Your task to perform on an android device: delete location history Image 0: 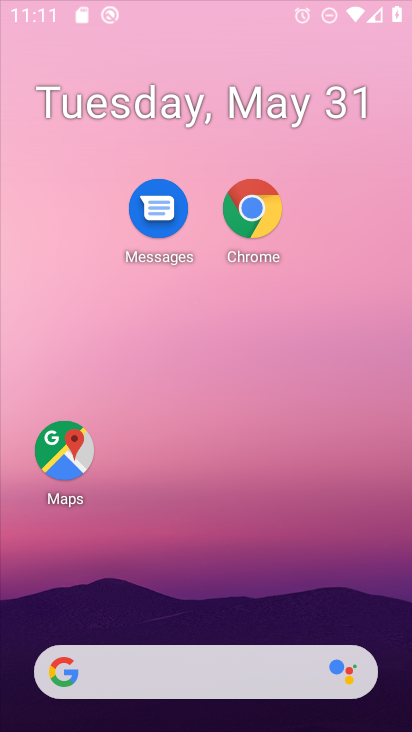
Step 0: press home button
Your task to perform on an android device: delete location history Image 1: 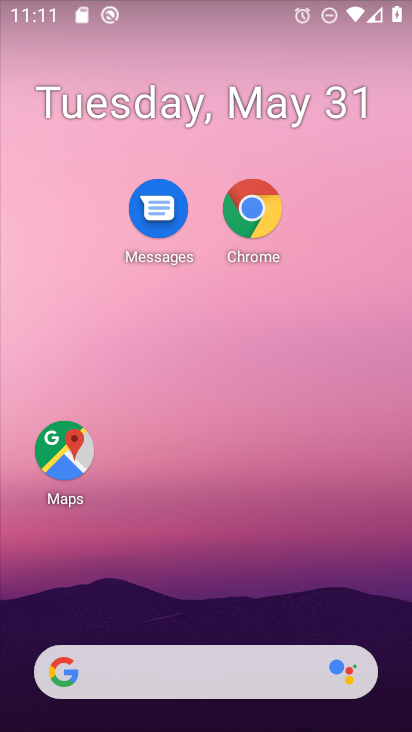
Step 1: drag from (230, 623) to (226, 164)
Your task to perform on an android device: delete location history Image 2: 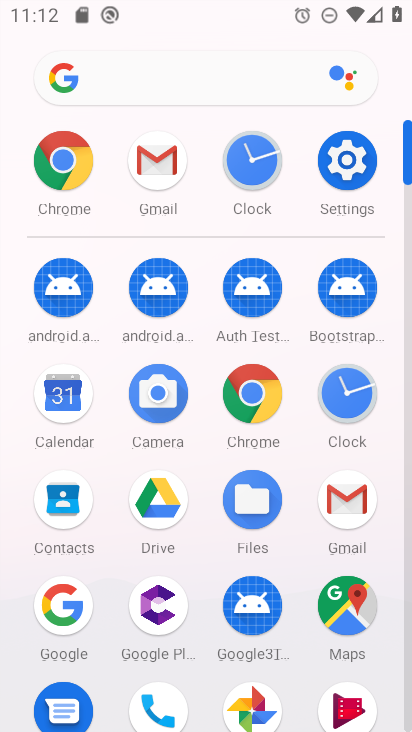
Step 2: click (354, 597)
Your task to perform on an android device: delete location history Image 3: 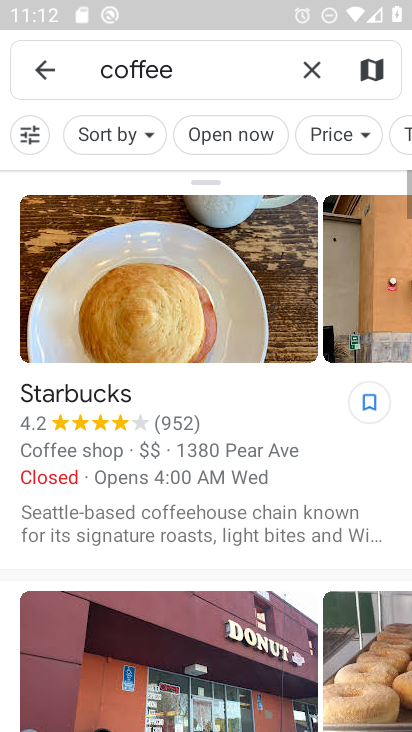
Step 3: click (34, 63)
Your task to perform on an android device: delete location history Image 4: 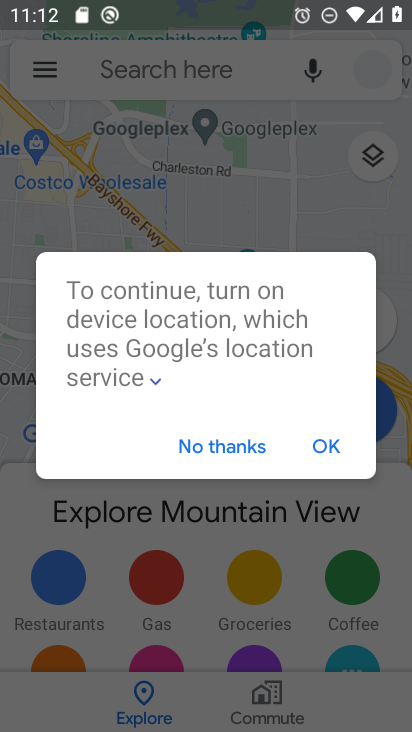
Step 4: click (308, 446)
Your task to perform on an android device: delete location history Image 5: 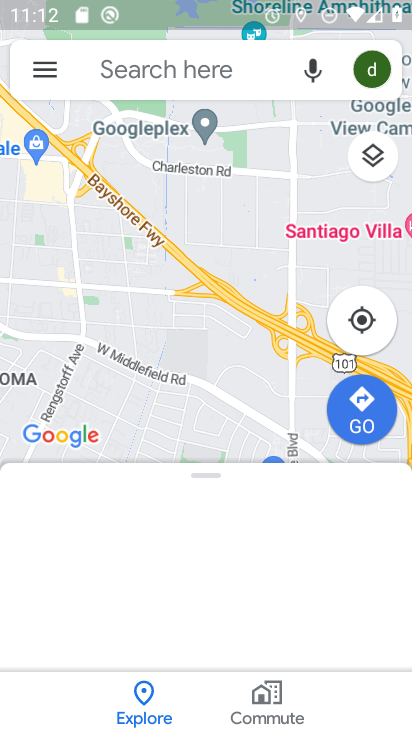
Step 5: click (44, 69)
Your task to perform on an android device: delete location history Image 6: 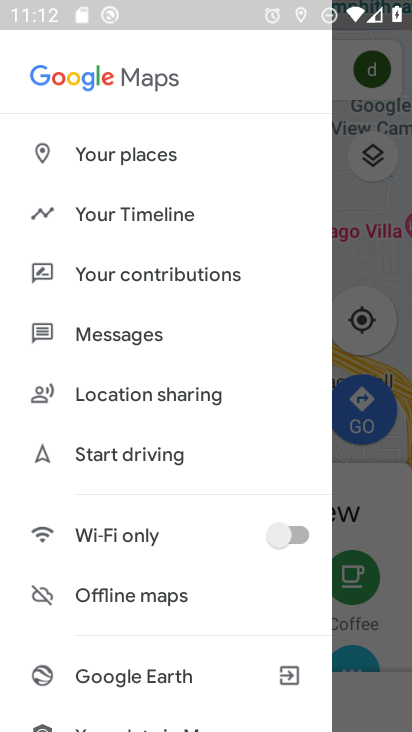
Step 6: click (202, 206)
Your task to perform on an android device: delete location history Image 7: 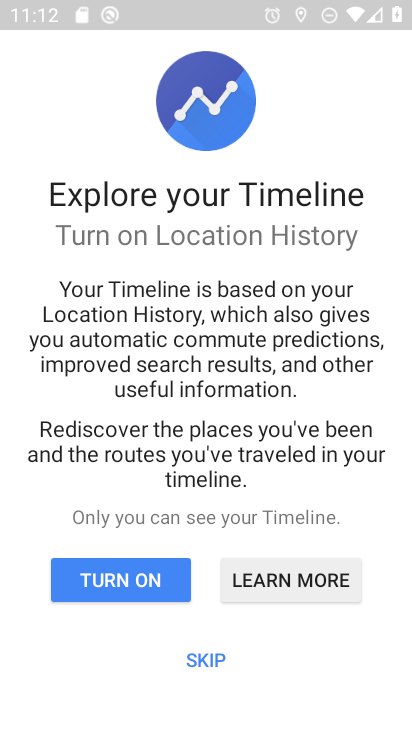
Step 7: click (121, 582)
Your task to perform on an android device: delete location history Image 8: 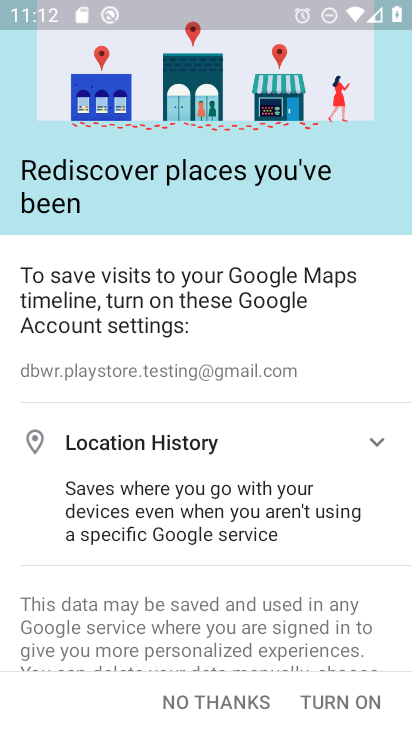
Step 8: drag from (275, 607) to (254, 98)
Your task to perform on an android device: delete location history Image 9: 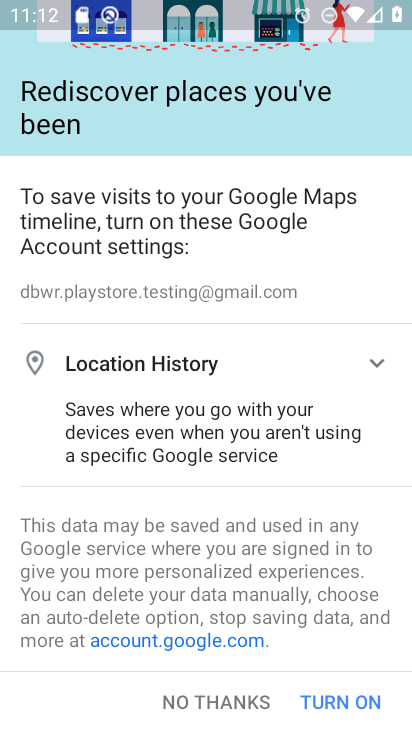
Step 9: click (335, 707)
Your task to perform on an android device: delete location history Image 10: 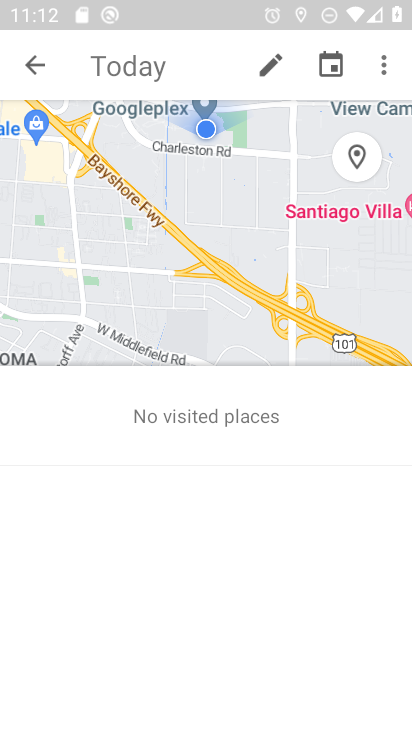
Step 10: click (389, 58)
Your task to perform on an android device: delete location history Image 11: 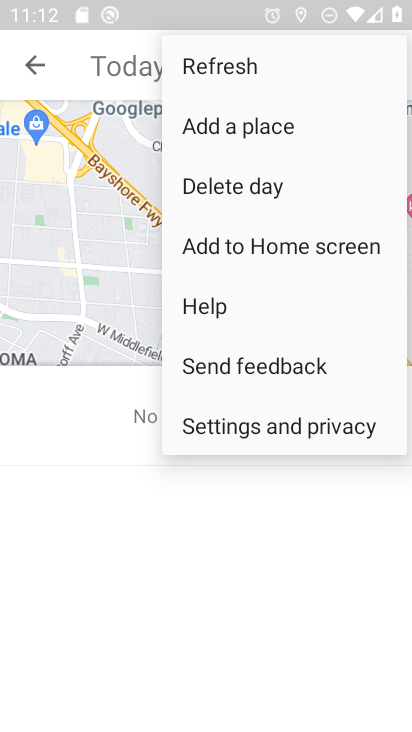
Step 11: click (267, 432)
Your task to perform on an android device: delete location history Image 12: 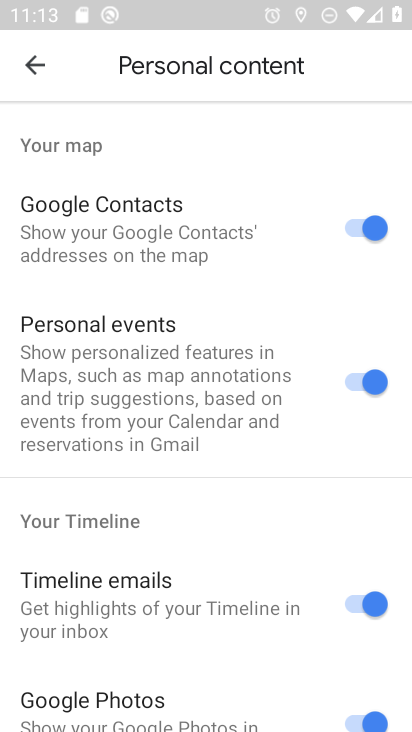
Step 12: drag from (190, 698) to (179, 149)
Your task to perform on an android device: delete location history Image 13: 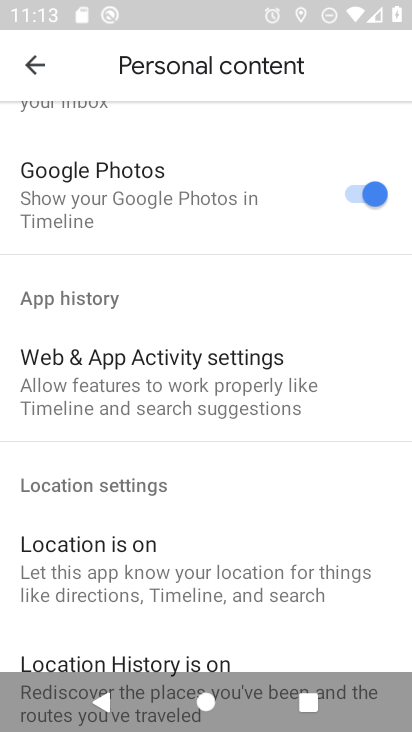
Step 13: drag from (201, 641) to (218, 18)
Your task to perform on an android device: delete location history Image 14: 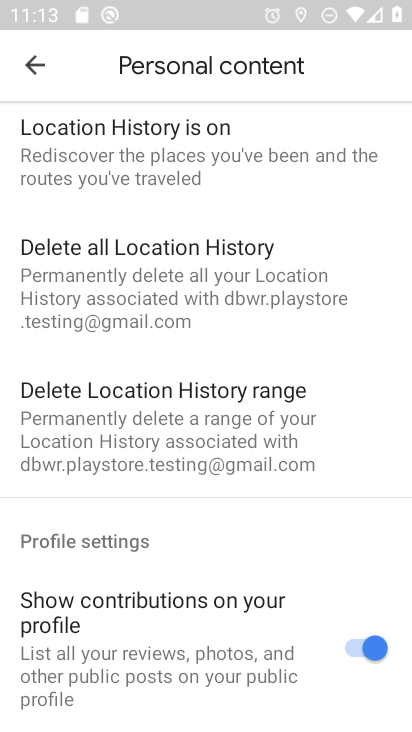
Step 14: click (171, 265)
Your task to perform on an android device: delete location history Image 15: 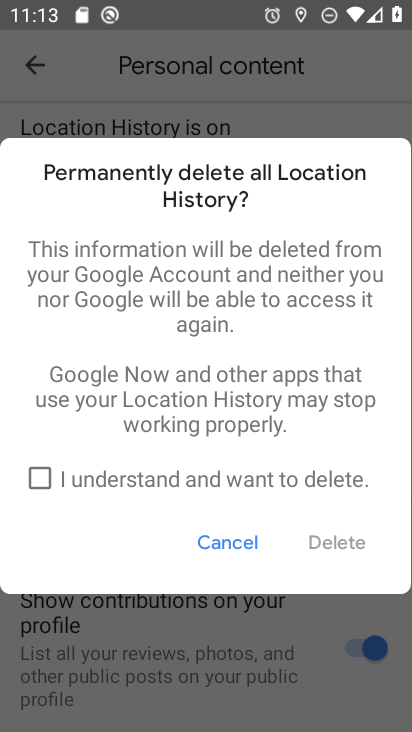
Step 15: click (38, 478)
Your task to perform on an android device: delete location history Image 16: 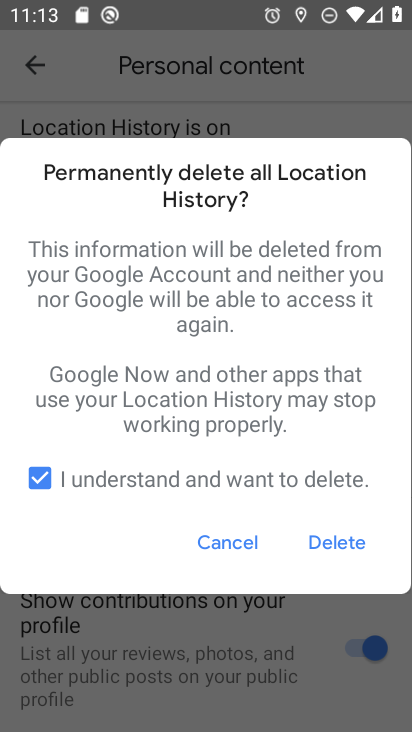
Step 16: click (333, 546)
Your task to perform on an android device: delete location history Image 17: 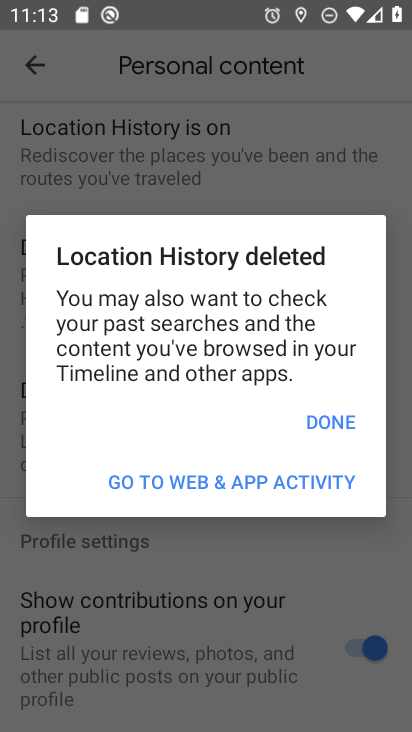
Step 17: click (326, 410)
Your task to perform on an android device: delete location history Image 18: 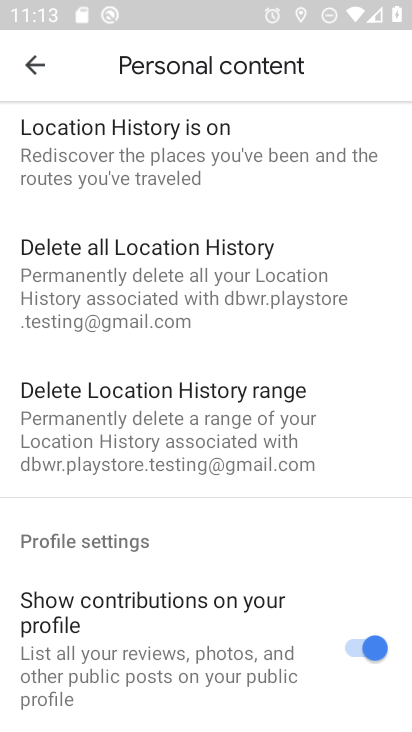
Step 18: task complete